Your task to perform on an android device: set the stopwatch Image 0: 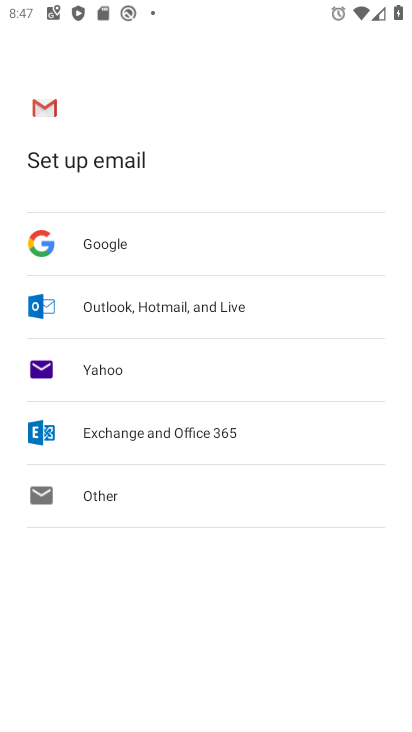
Step 0: press home button
Your task to perform on an android device: set the stopwatch Image 1: 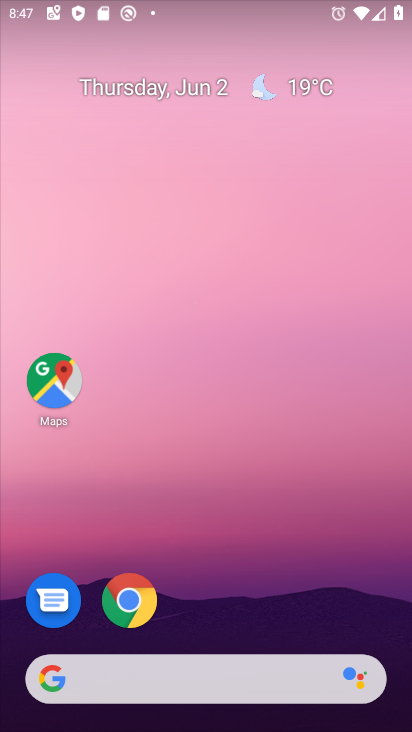
Step 1: drag from (337, 614) to (347, 186)
Your task to perform on an android device: set the stopwatch Image 2: 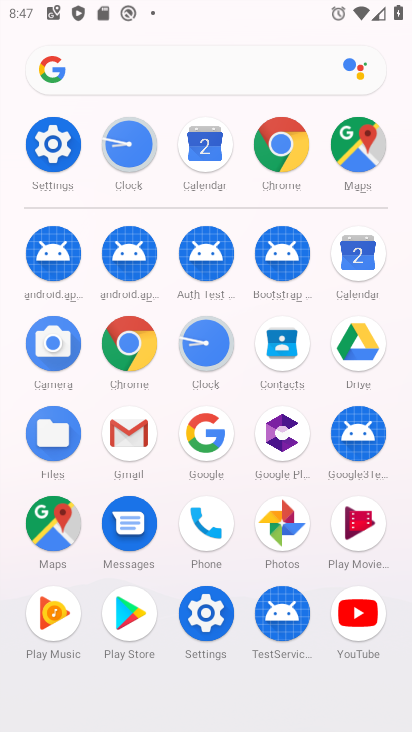
Step 2: click (209, 352)
Your task to perform on an android device: set the stopwatch Image 3: 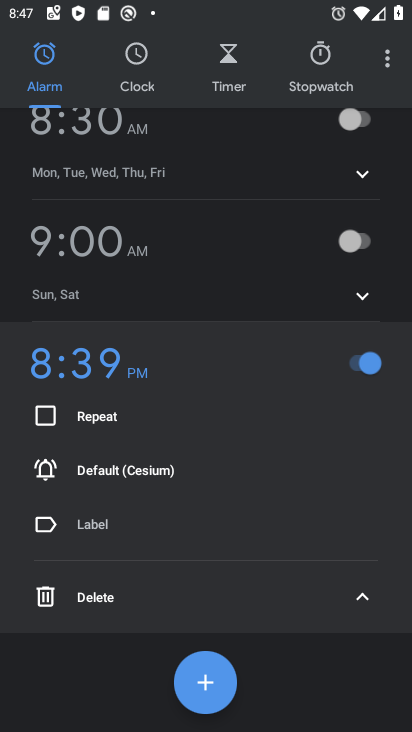
Step 3: click (313, 83)
Your task to perform on an android device: set the stopwatch Image 4: 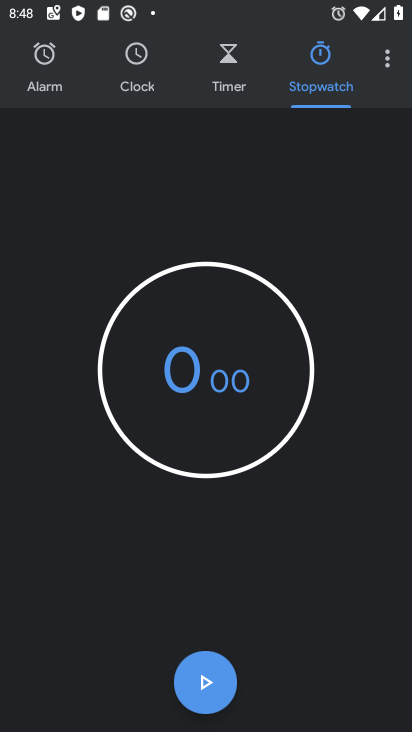
Step 4: click (208, 697)
Your task to perform on an android device: set the stopwatch Image 5: 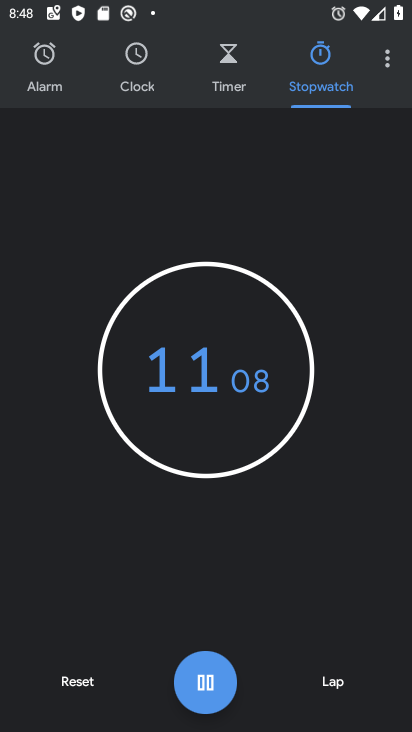
Step 5: task complete